Your task to perform on an android device: Check the weather Image 0: 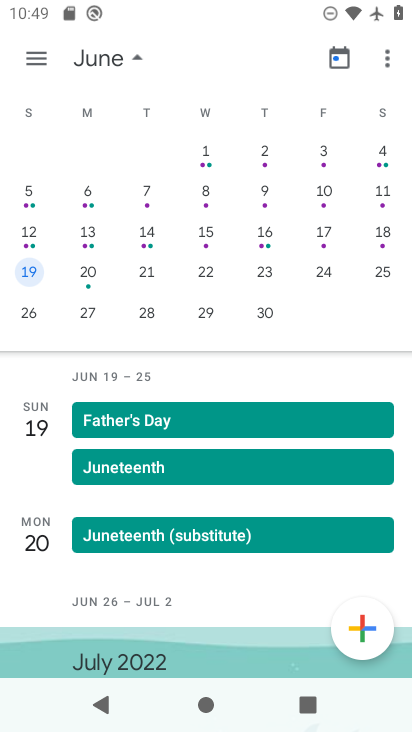
Step 0: press home button
Your task to perform on an android device: Check the weather Image 1: 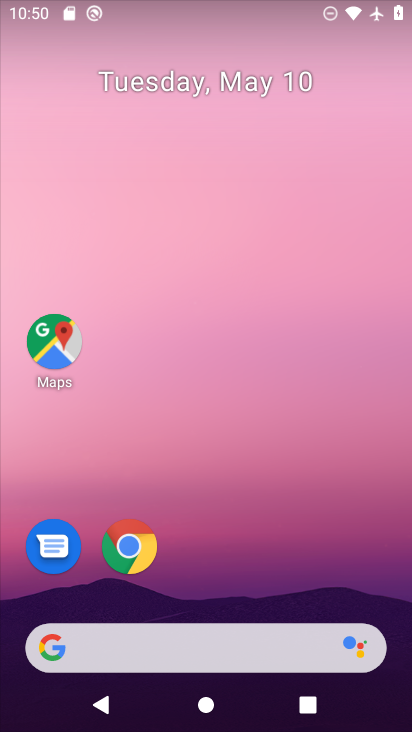
Step 1: drag from (304, 550) to (343, 90)
Your task to perform on an android device: Check the weather Image 2: 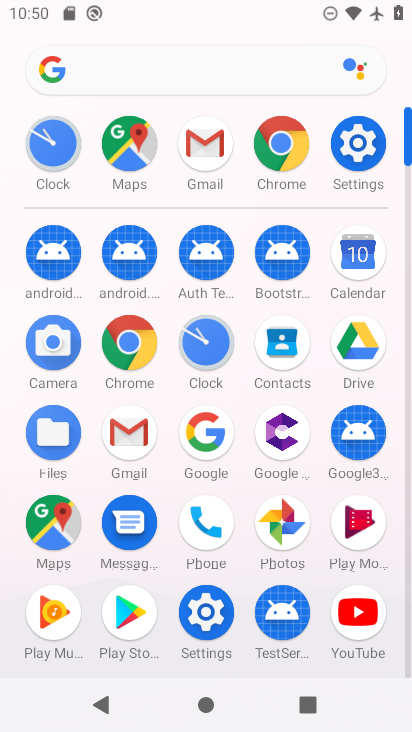
Step 2: click (142, 341)
Your task to perform on an android device: Check the weather Image 3: 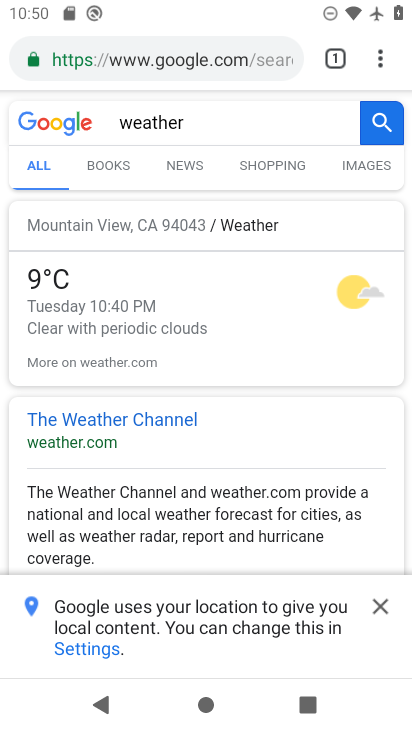
Step 3: task complete